Your task to perform on an android device: Open network settings Image 0: 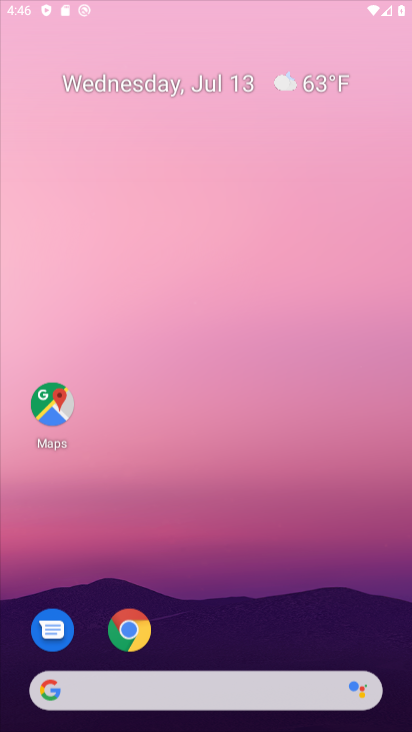
Step 0: press home button
Your task to perform on an android device: Open network settings Image 1: 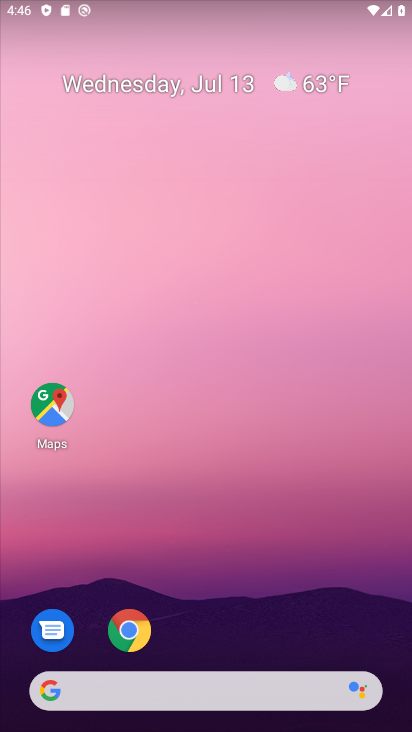
Step 1: drag from (227, 646) to (190, 126)
Your task to perform on an android device: Open network settings Image 2: 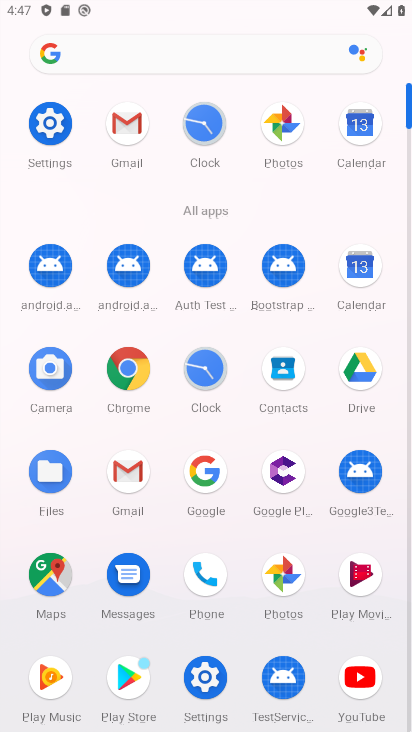
Step 2: click (47, 142)
Your task to perform on an android device: Open network settings Image 3: 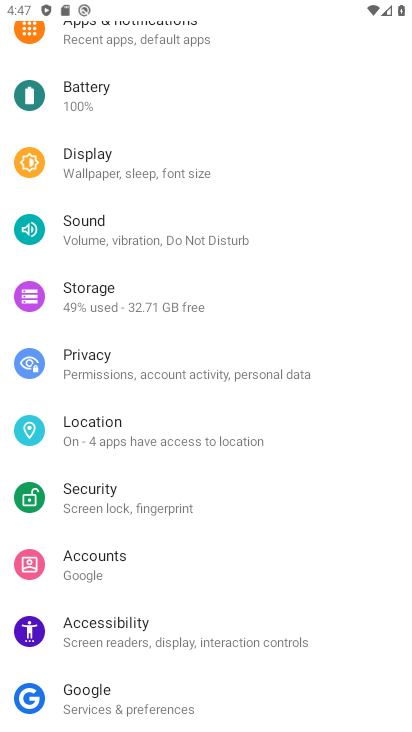
Step 3: drag from (212, 116) to (215, 484)
Your task to perform on an android device: Open network settings Image 4: 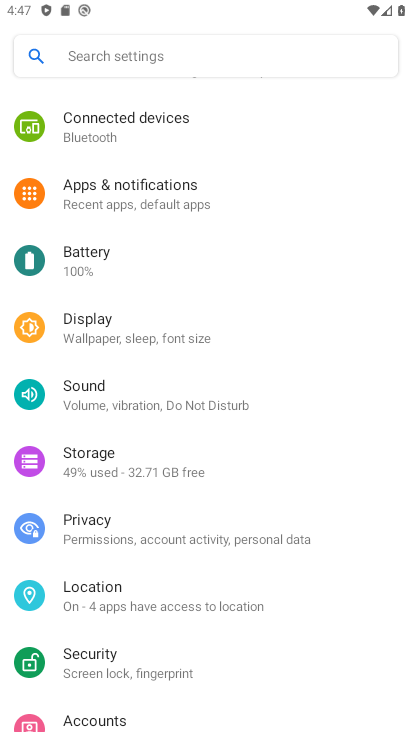
Step 4: drag from (332, 616) to (348, 161)
Your task to perform on an android device: Open network settings Image 5: 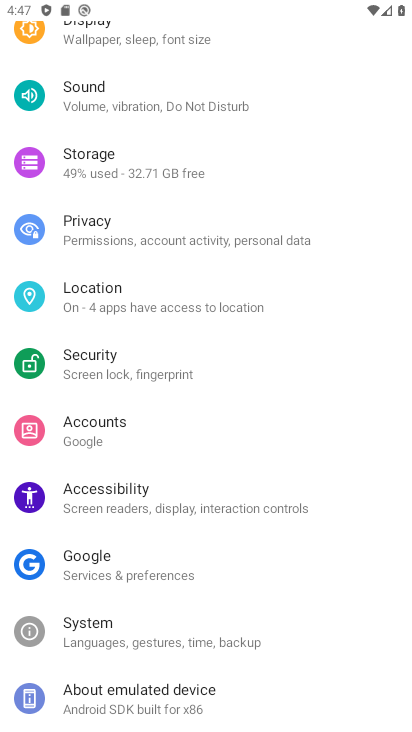
Step 5: drag from (325, 163) to (321, 729)
Your task to perform on an android device: Open network settings Image 6: 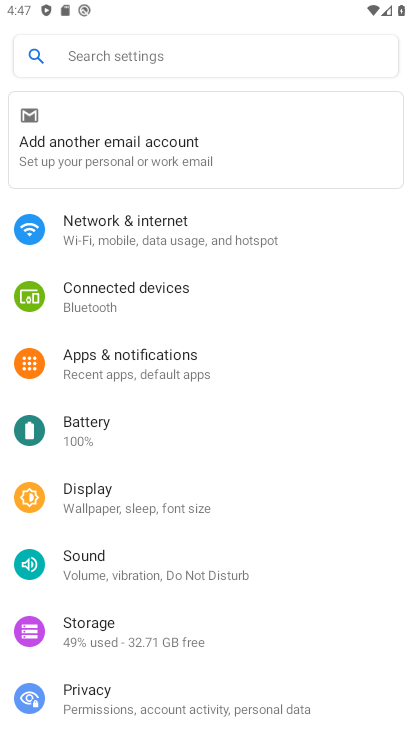
Step 6: click (121, 229)
Your task to perform on an android device: Open network settings Image 7: 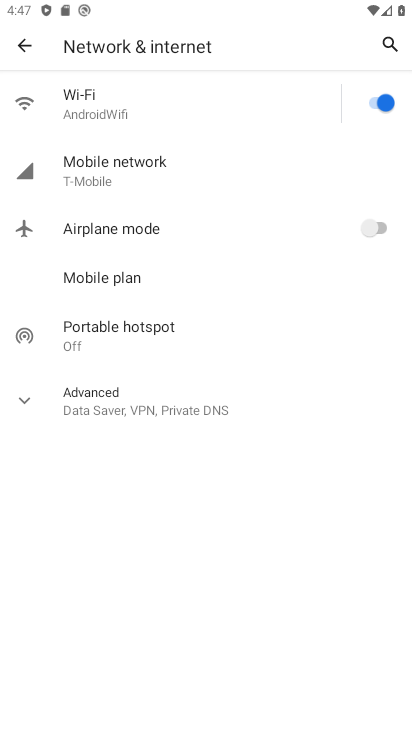
Step 7: task complete